Your task to perform on an android device: turn on the 12-hour format for clock Image 0: 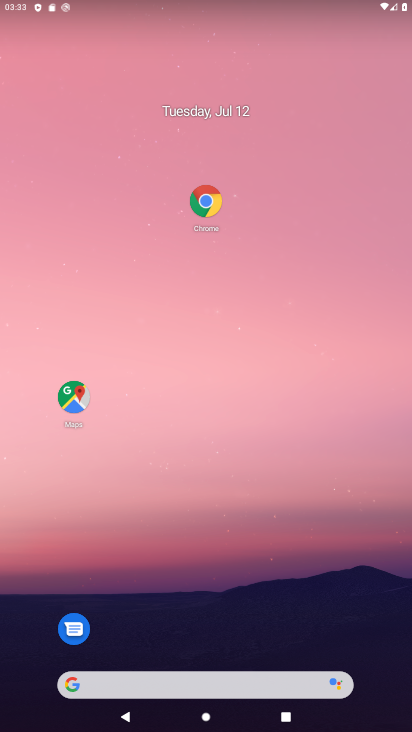
Step 0: drag from (146, 662) to (251, 166)
Your task to perform on an android device: turn on the 12-hour format for clock Image 1: 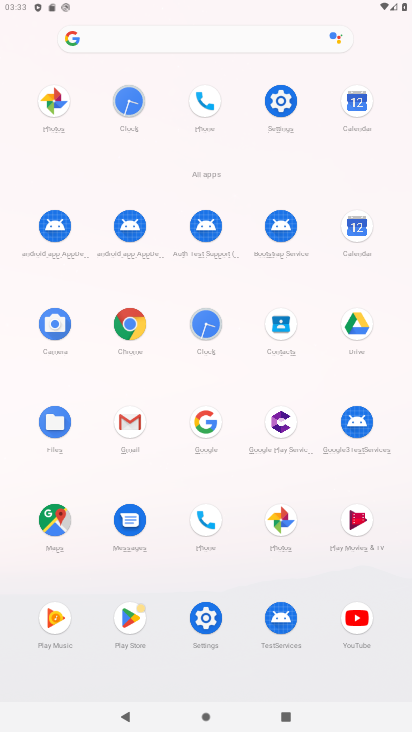
Step 1: click (206, 334)
Your task to perform on an android device: turn on the 12-hour format for clock Image 2: 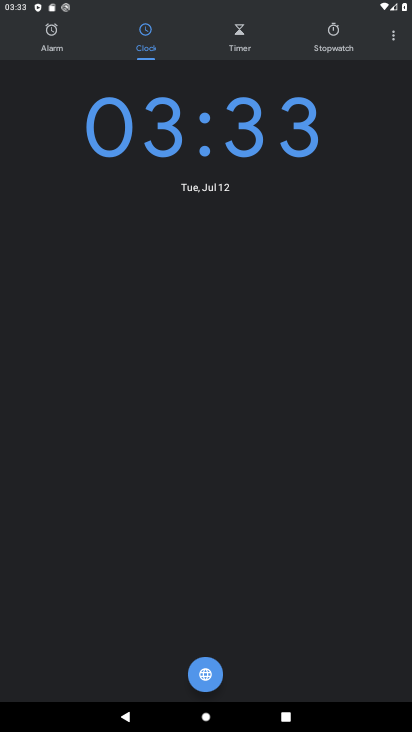
Step 2: click (390, 33)
Your task to perform on an android device: turn on the 12-hour format for clock Image 3: 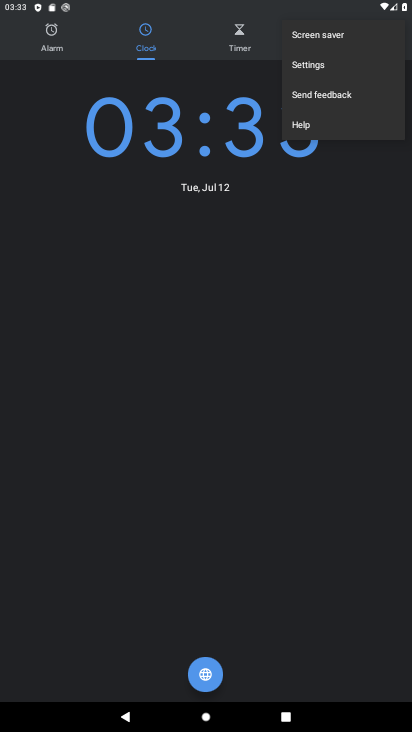
Step 3: click (355, 66)
Your task to perform on an android device: turn on the 12-hour format for clock Image 4: 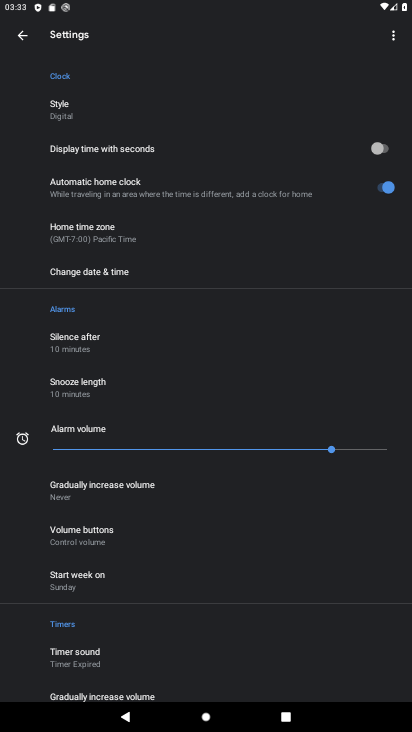
Step 4: click (135, 279)
Your task to perform on an android device: turn on the 12-hour format for clock Image 5: 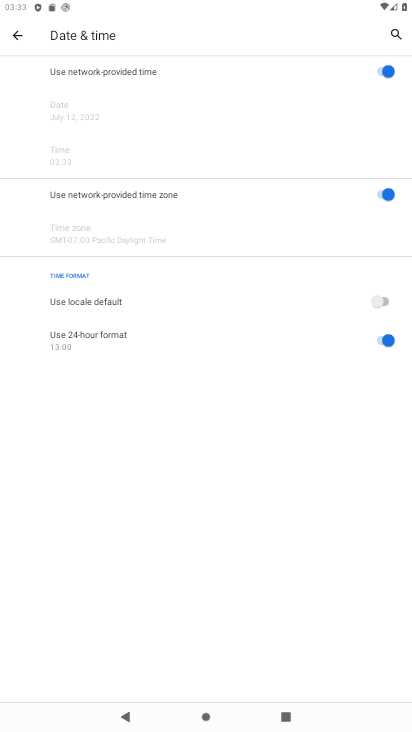
Step 5: click (382, 337)
Your task to perform on an android device: turn on the 12-hour format for clock Image 6: 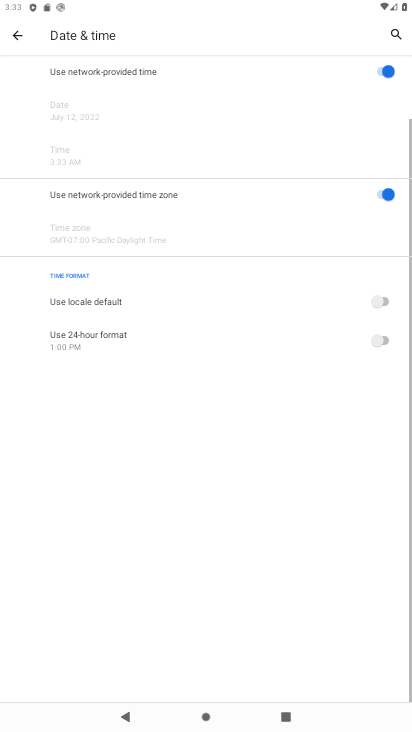
Step 6: click (388, 306)
Your task to perform on an android device: turn on the 12-hour format for clock Image 7: 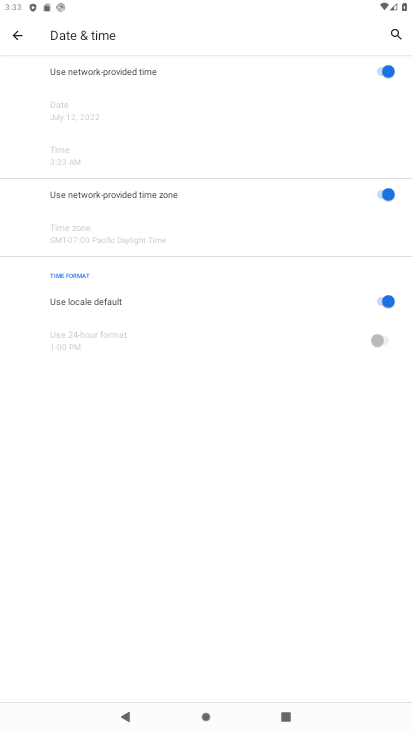
Step 7: task complete